Your task to perform on an android device: add a contact in the contacts app Image 0: 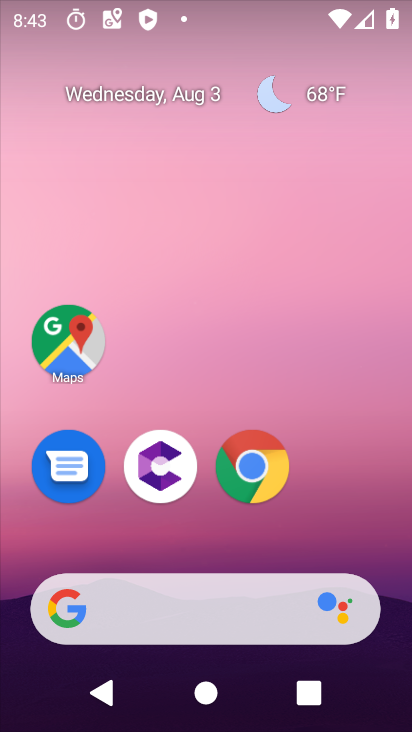
Step 0: drag from (377, 414) to (317, 3)
Your task to perform on an android device: add a contact in the contacts app Image 1: 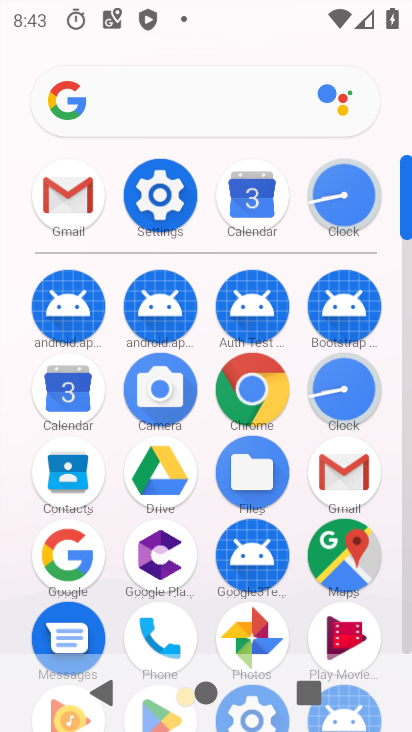
Step 1: click (67, 461)
Your task to perform on an android device: add a contact in the contacts app Image 2: 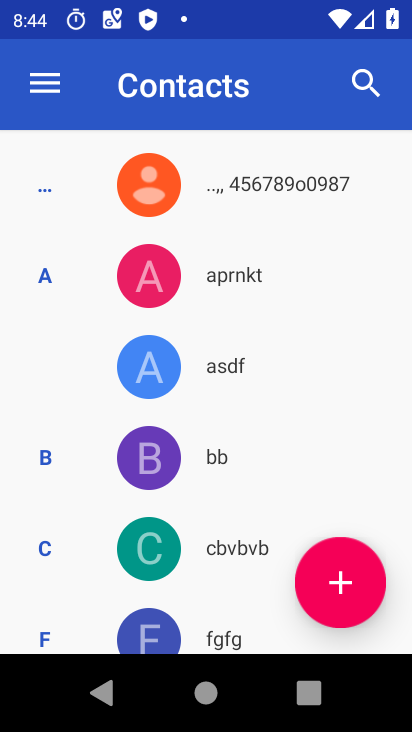
Step 2: click (324, 574)
Your task to perform on an android device: add a contact in the contacts app Image 3: 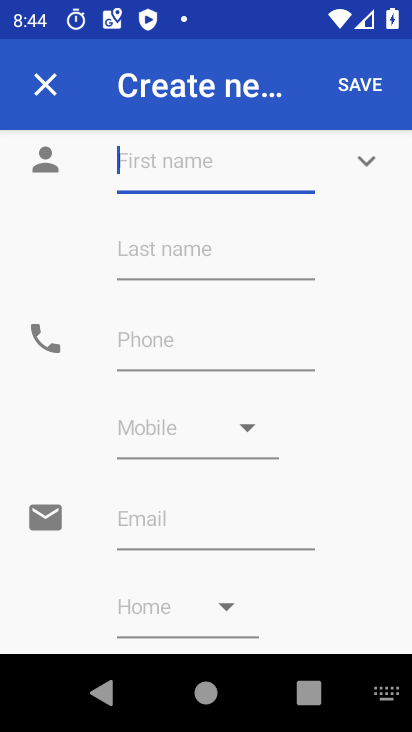
Step 3: type "expesive life"
Your task to perform on an android device: add a contact in the contacts app Image 4: 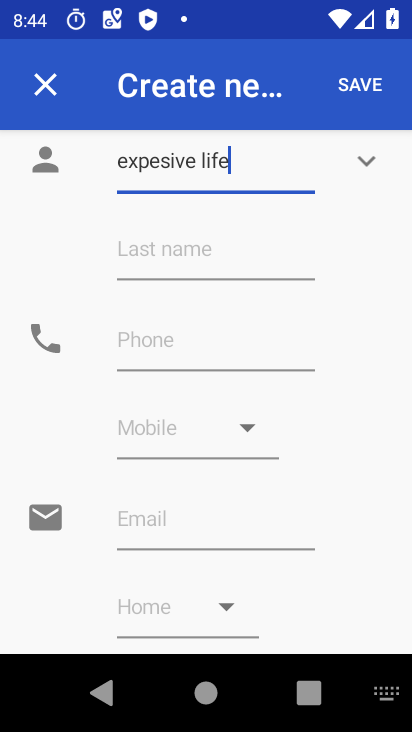
Step 4: click (365, 79)
Your task to perform on an android device: add a contact in the contacts app Image 5: 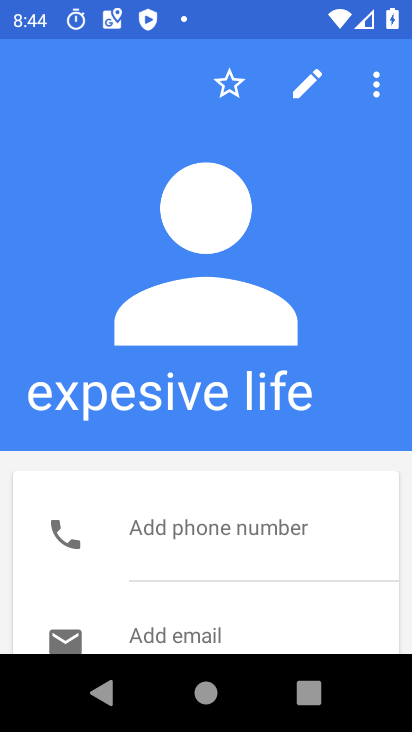
Step 5: task complete